Your task to perform on an android device: Open Google Chrome Image 0: 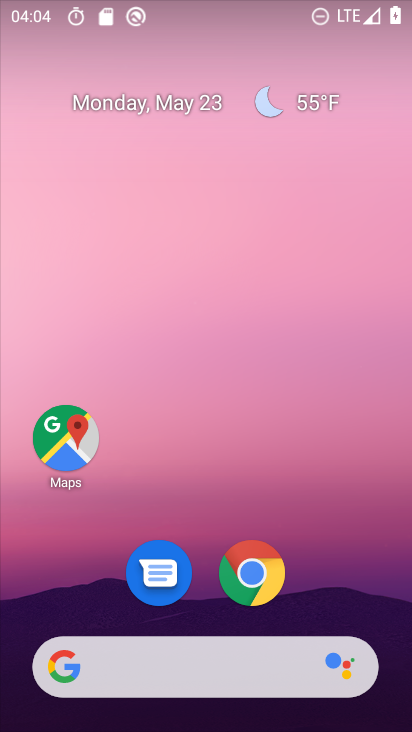
Step 0: click (260, 584)
Your task to perform on an android device: Open Google Chrome Image 1: 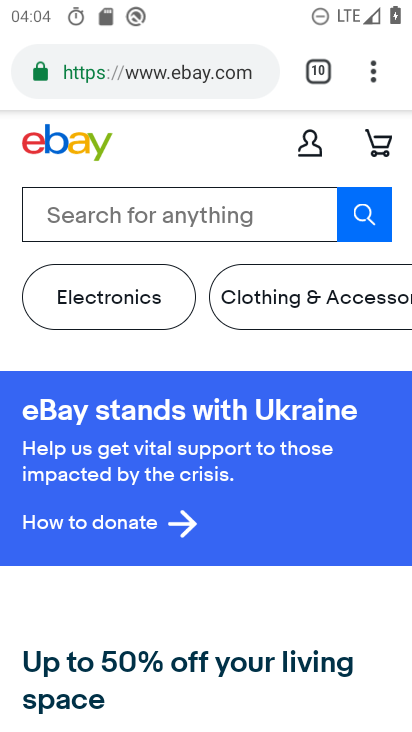
Step 1: task complete